Your task to perform on an android device: delete the emails in spam in the gmail app Image 0: 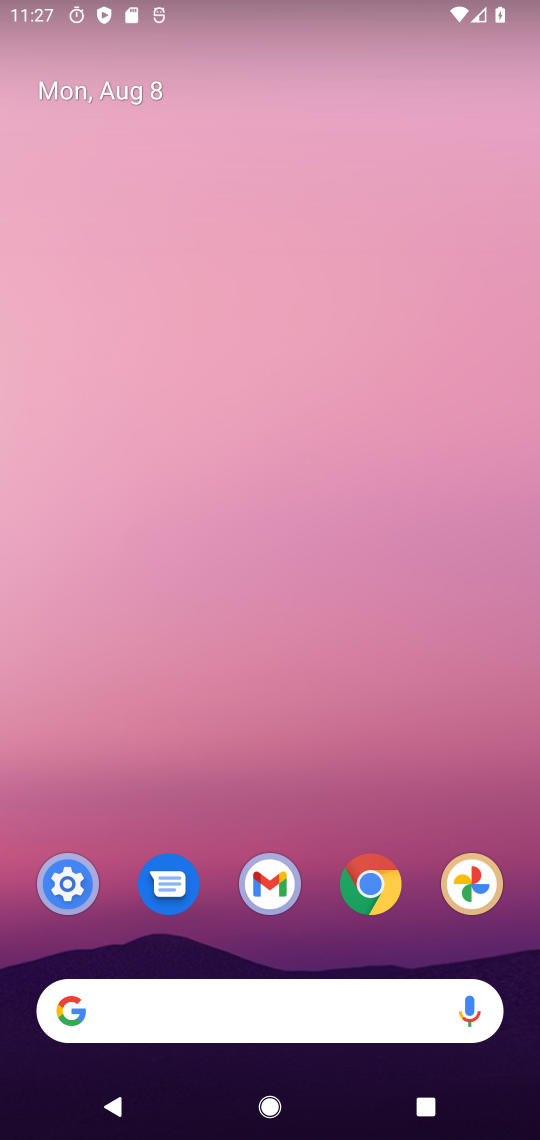
Step 0: click (269, 895)
Your task to perform on an android device: delete the emails in spam in the gmail app Image 1: 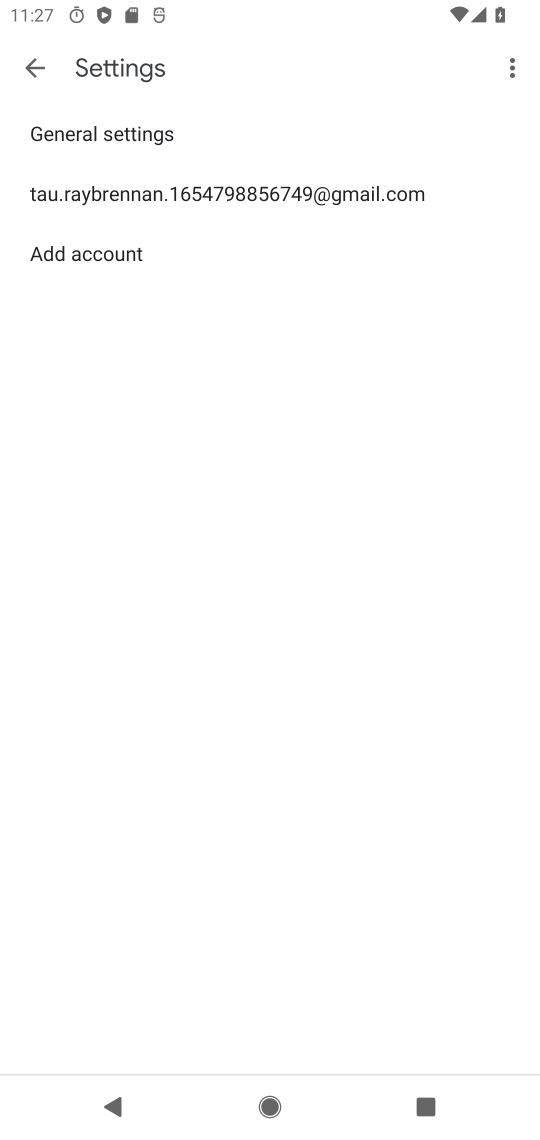
Step 1: click (264, 195)
Your task to perform on an android device: delete the emails in spam in the gmail app Image 2: 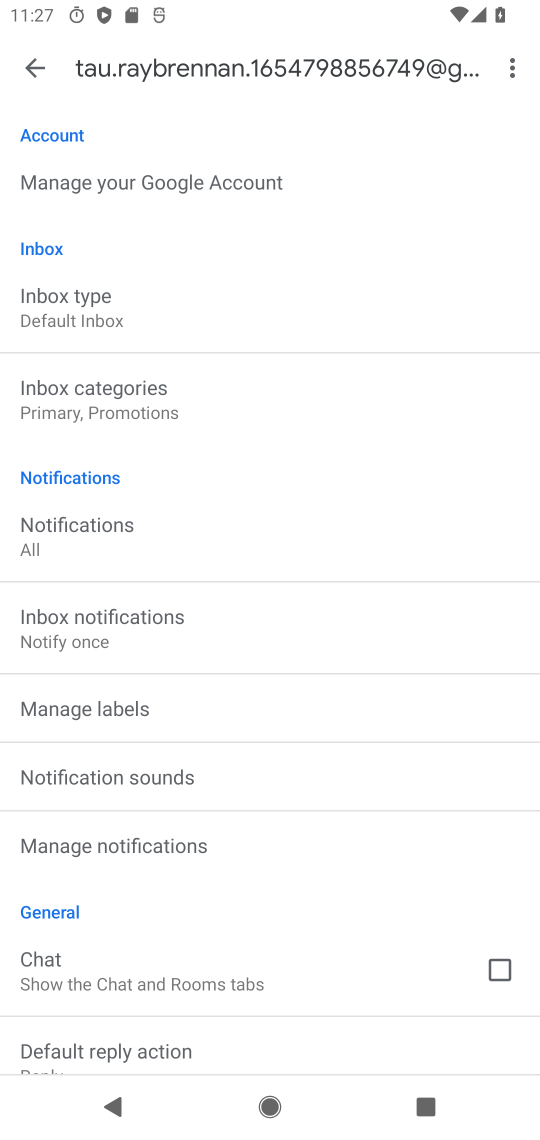
Step 2: click (32, 65)
Your task to perform on an android device: delete the emails in spam in the gmail app Image 3: 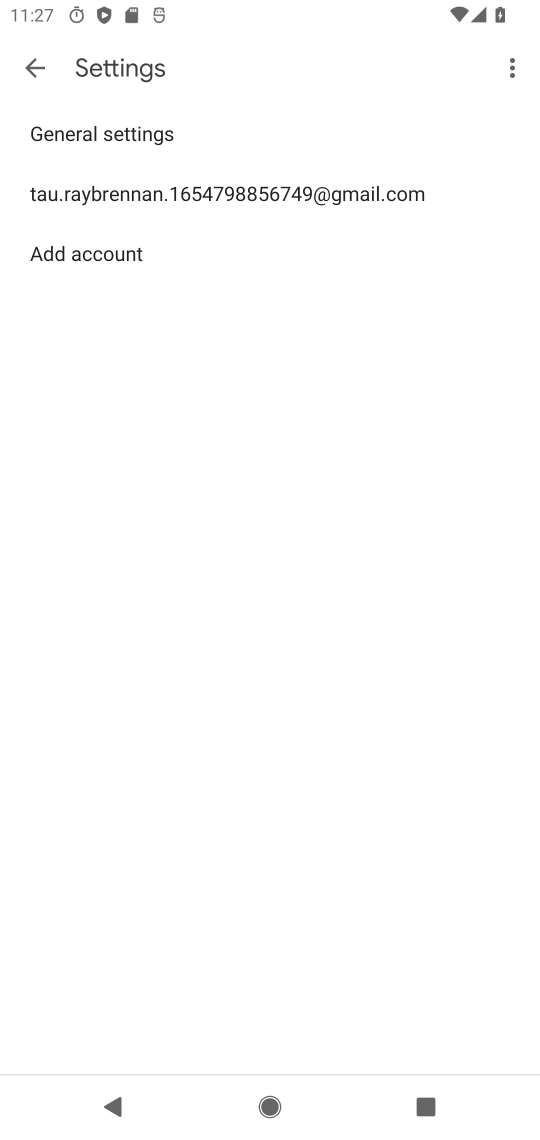
Step 3: click (32, 65)
Your task to perform on an android device: delete the emails in spam in the gmail app Image 4: 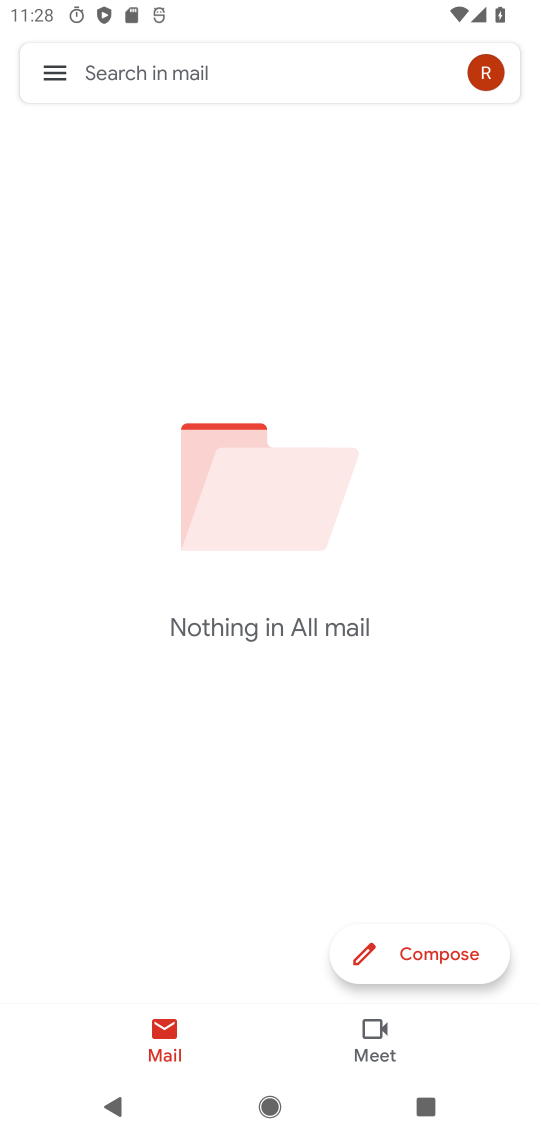
Step 4: click (58, 69)
Your task to perform on an android device: delete the emails in spam in the gmail app Image 5: 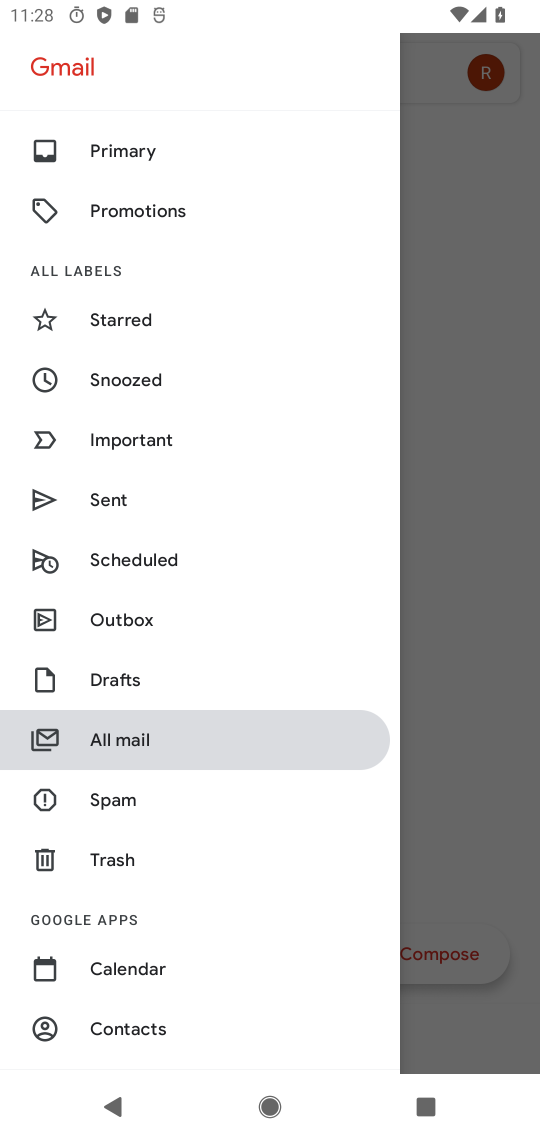
Step 5: click (111, 803)
Your task to perform on an android device: delete the emails in spam in the gmail app Image 6: 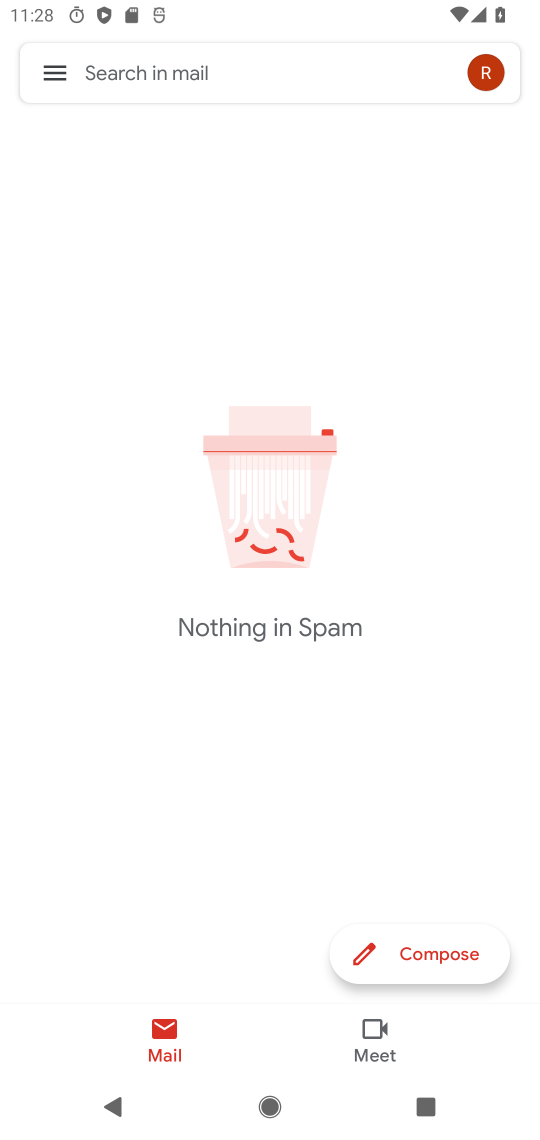
Step 6: task complete